Your task to perform on an android device: open the mobile data screen to see how much data has been used Image 0: 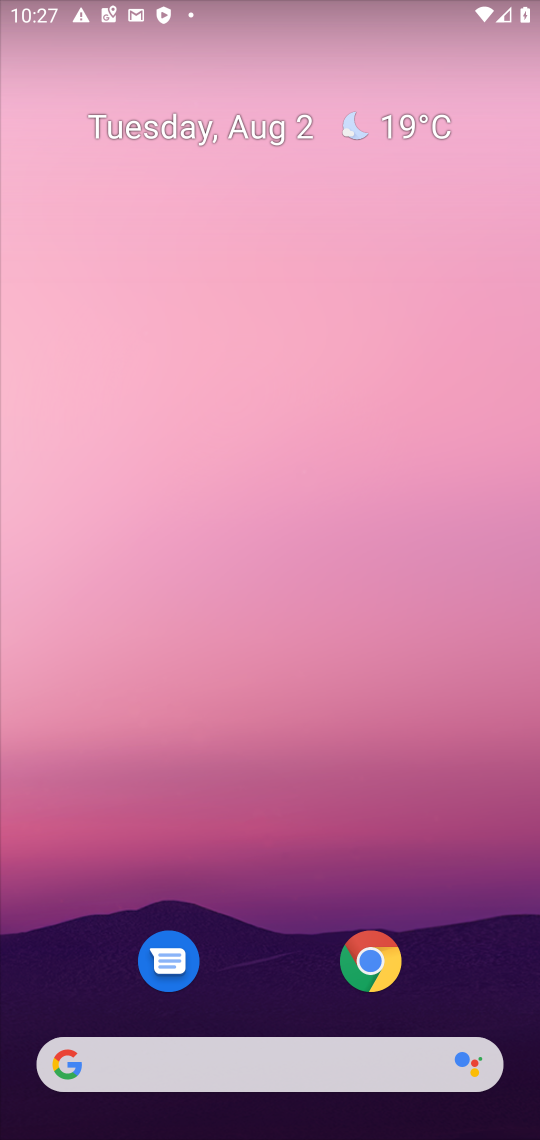
Step 0: press home button
Your task to perform on an android device: open the mobile data screen to see how much data has been used Image 1: 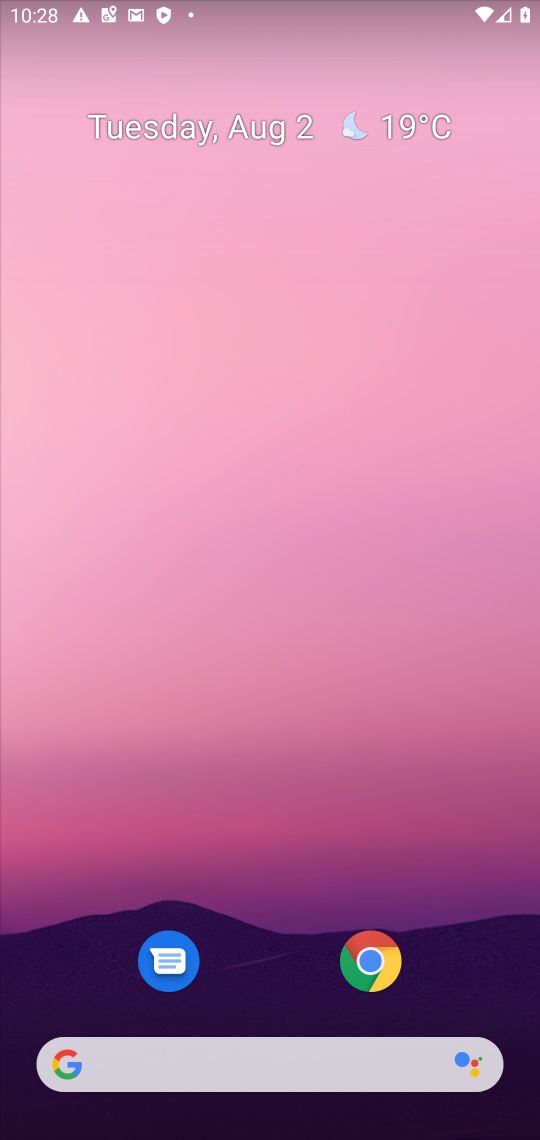
Step 1: drag from (271, 964) to (299, 506)
Your task to perform on an android device: open the mobile data screen to see how much data has been used Image 2: 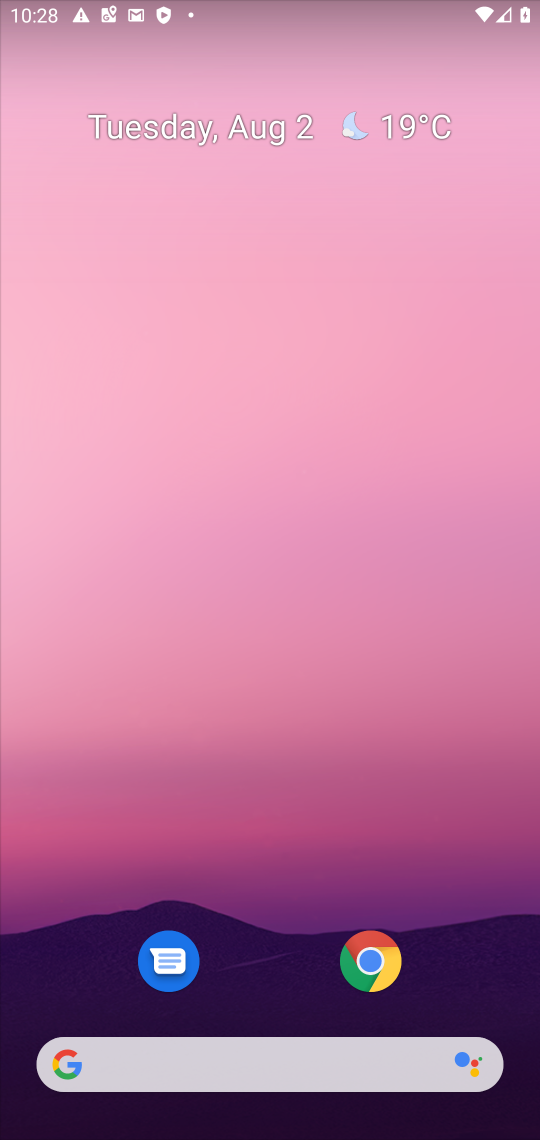
Step 2: drag from (476, 10) to (107, 1110)
Your task to perform on an android device: open the mobile data screen to see how much data has been used Image 3: 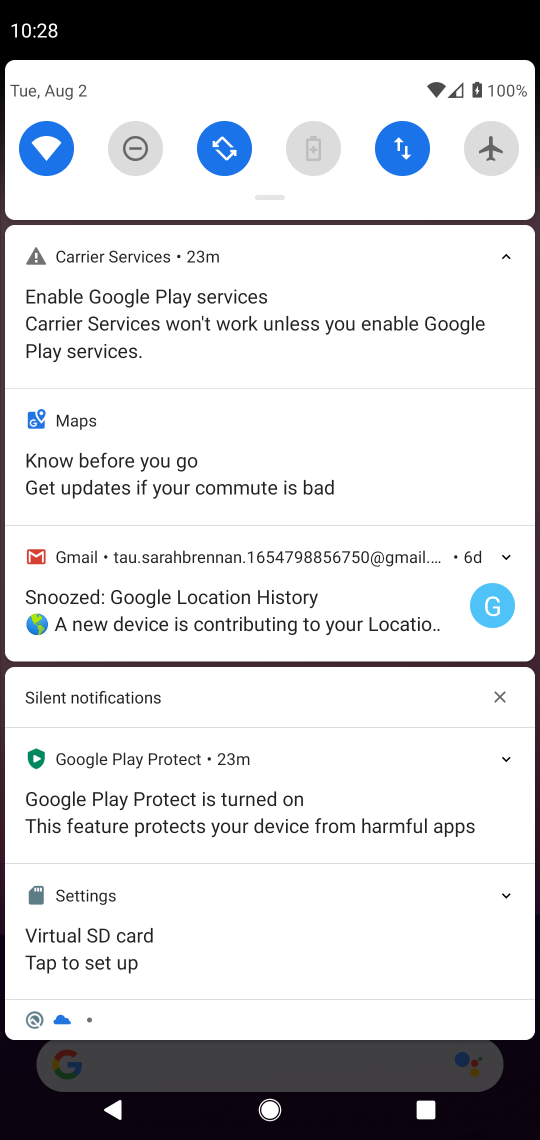
Step 3: click (396, 132)
Your task to perform on an android device: open the mobile data screen to see how much data has been used Image 4: 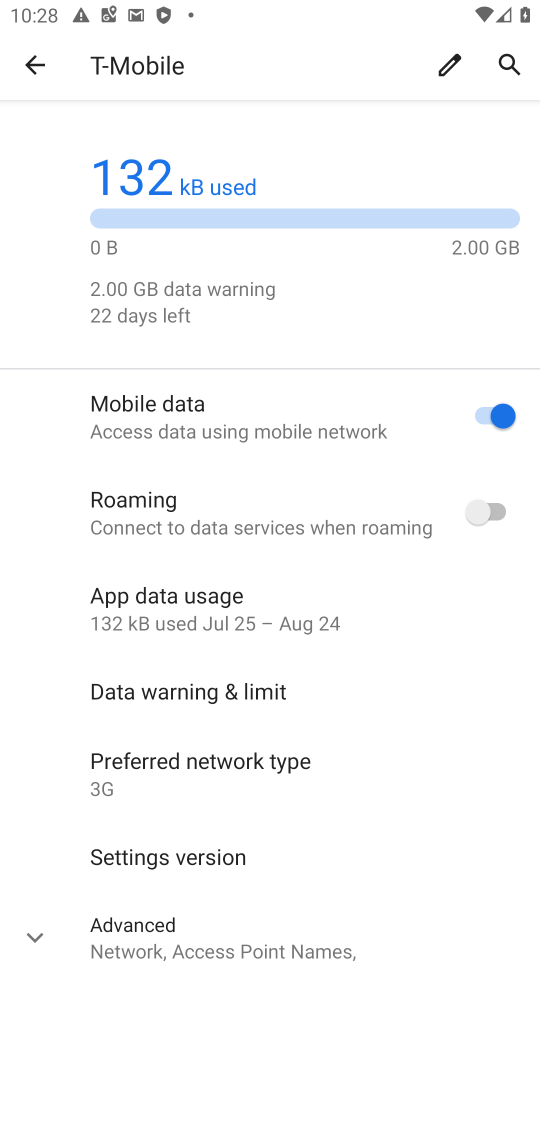
Step 4: task complete